Your task to perform on an android device: see tabs open on other devices in the chrome app Image 0: 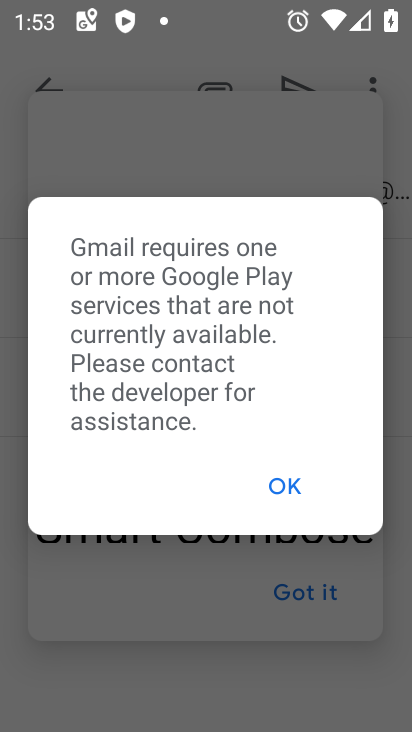
Step 0: press home button
Your task to perform on an android device: see tabs open on other devices in the chrome app Image 1: 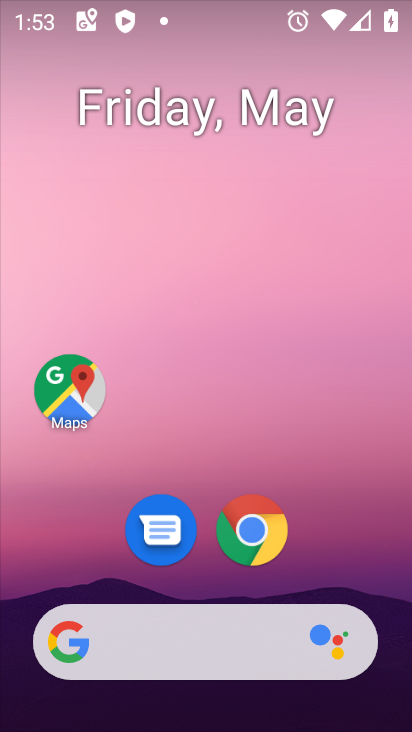
Step 1: click (252, 526)
Your task to perform on an android device: see tabs open on other devices in the chrome app Image 2: 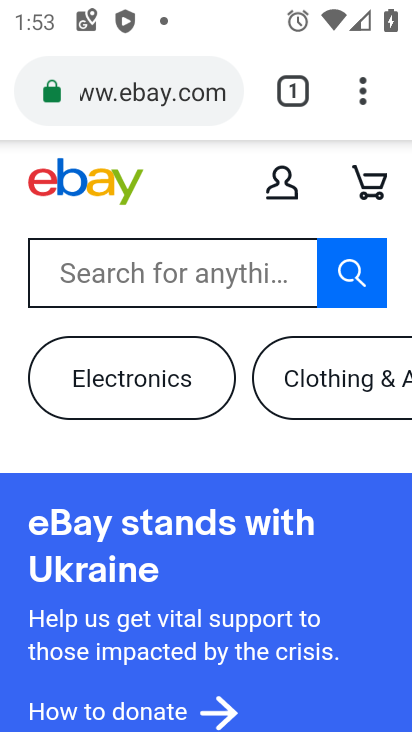
Step 2: click (363, 91)
Your task to perform on an android device: see tabs open on other devices in the chrome app Image 3: 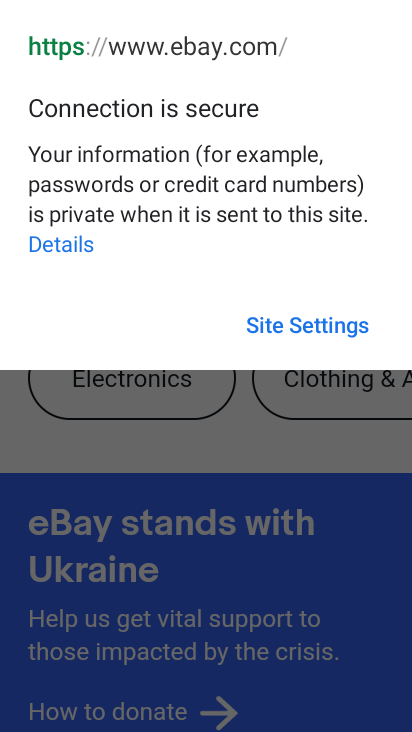
Step 3: click (313, 514)
Your task to perform on an android device: see tabs open on other devices in the chrome app Image 4: 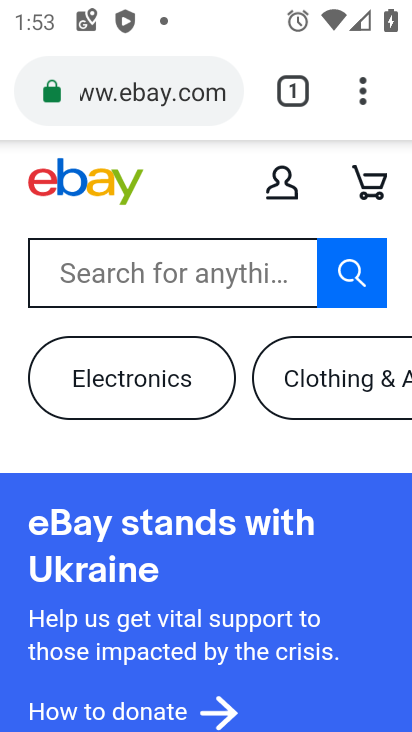
Step 4: click (355, 83)
Your task to perform on an android device: see tabs open on other devices in the chrome app Image 5: 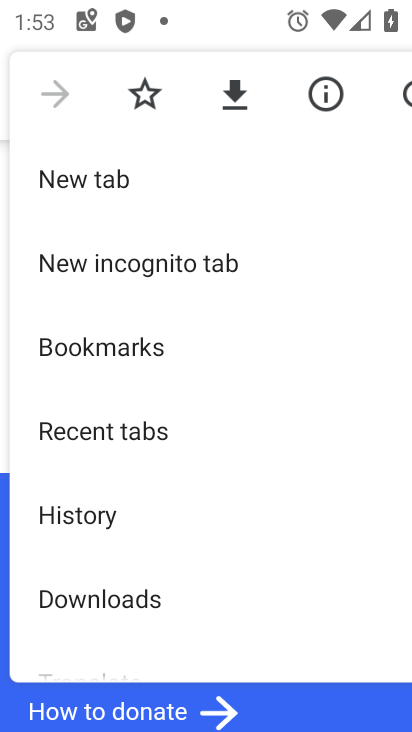
Step 5: click (201, 424)
Your task to perform on an android device: see tabs open on other devices in the chrome app Image 6: 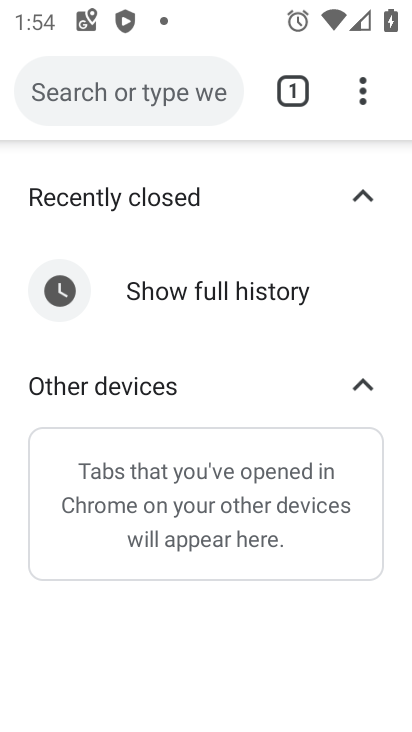
Step 6: task complete